Your task to perform on an android device: View the shopping cart on newegg. Image 0: 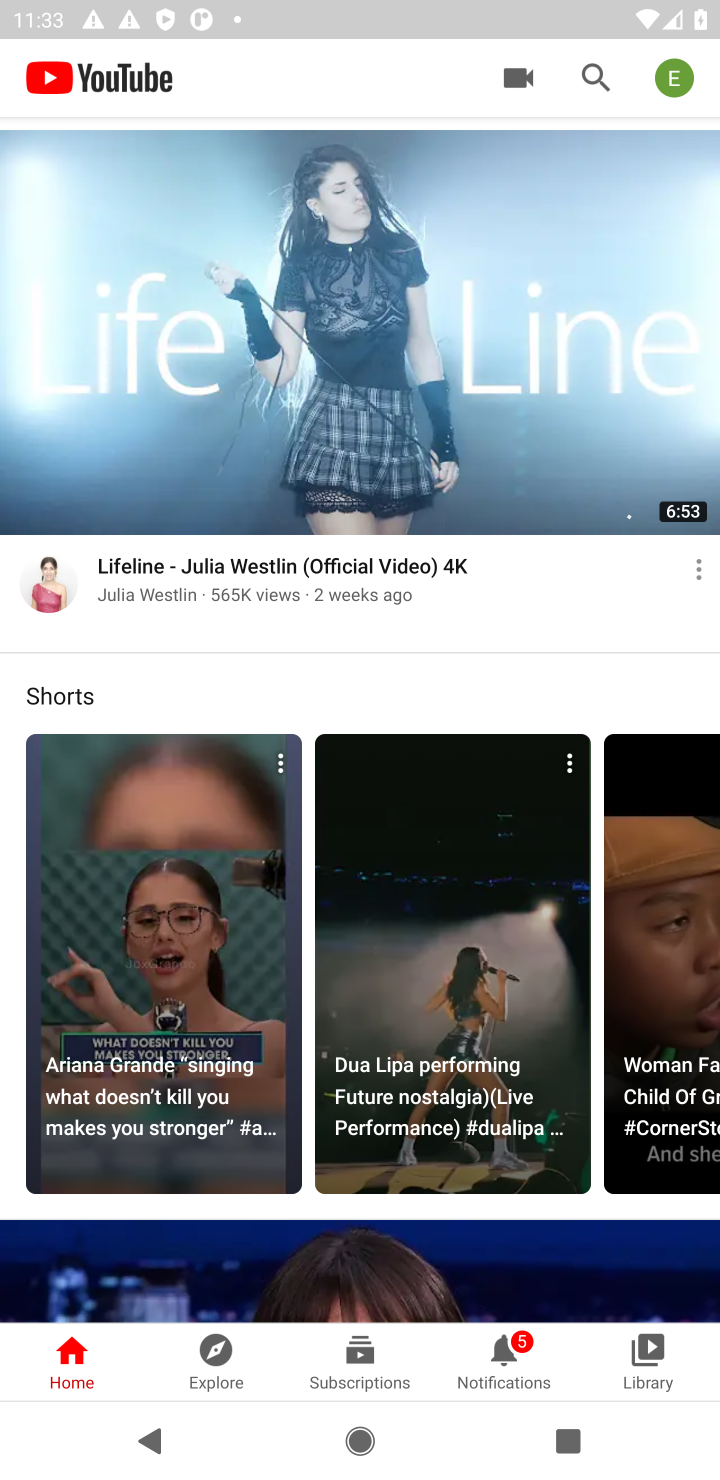
Step 0: press home button
Your task to perform on an android device: View the shopping cart on newegg. Image 1: 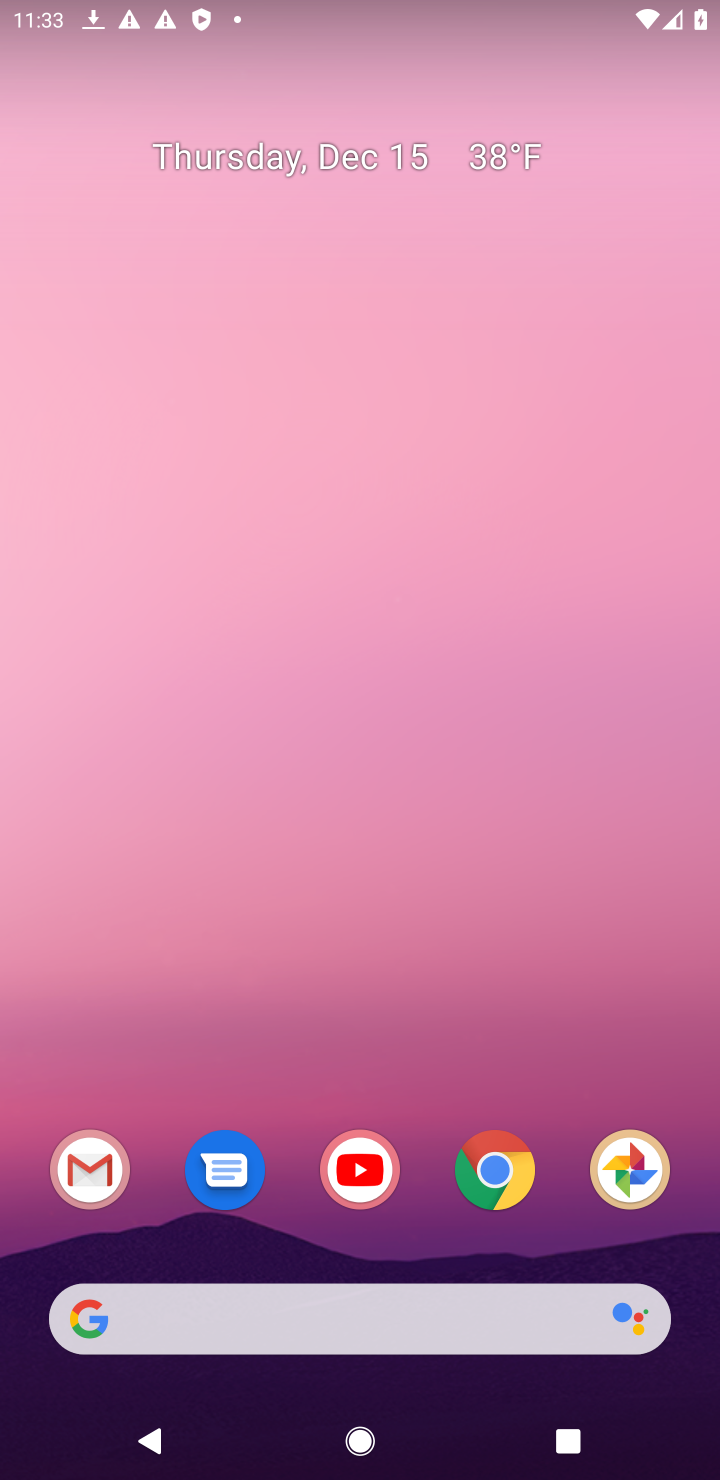
Step 1: click (504, 1188)
Your task to perform on an android device: View the shopping cart on newegg. Image 2: 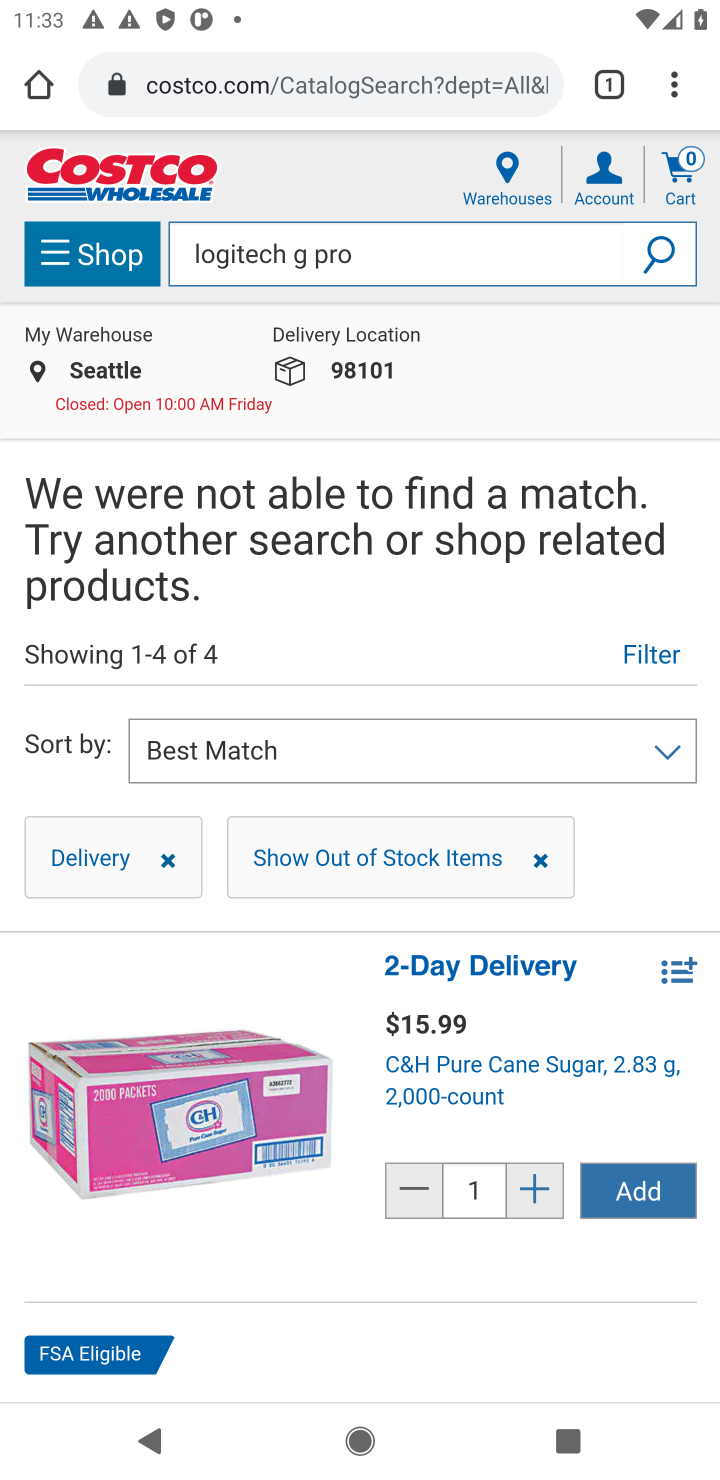
Step 2: click (301, 94)
Your task to perform on an android device: View the shopping cart on newegg. Image 3: 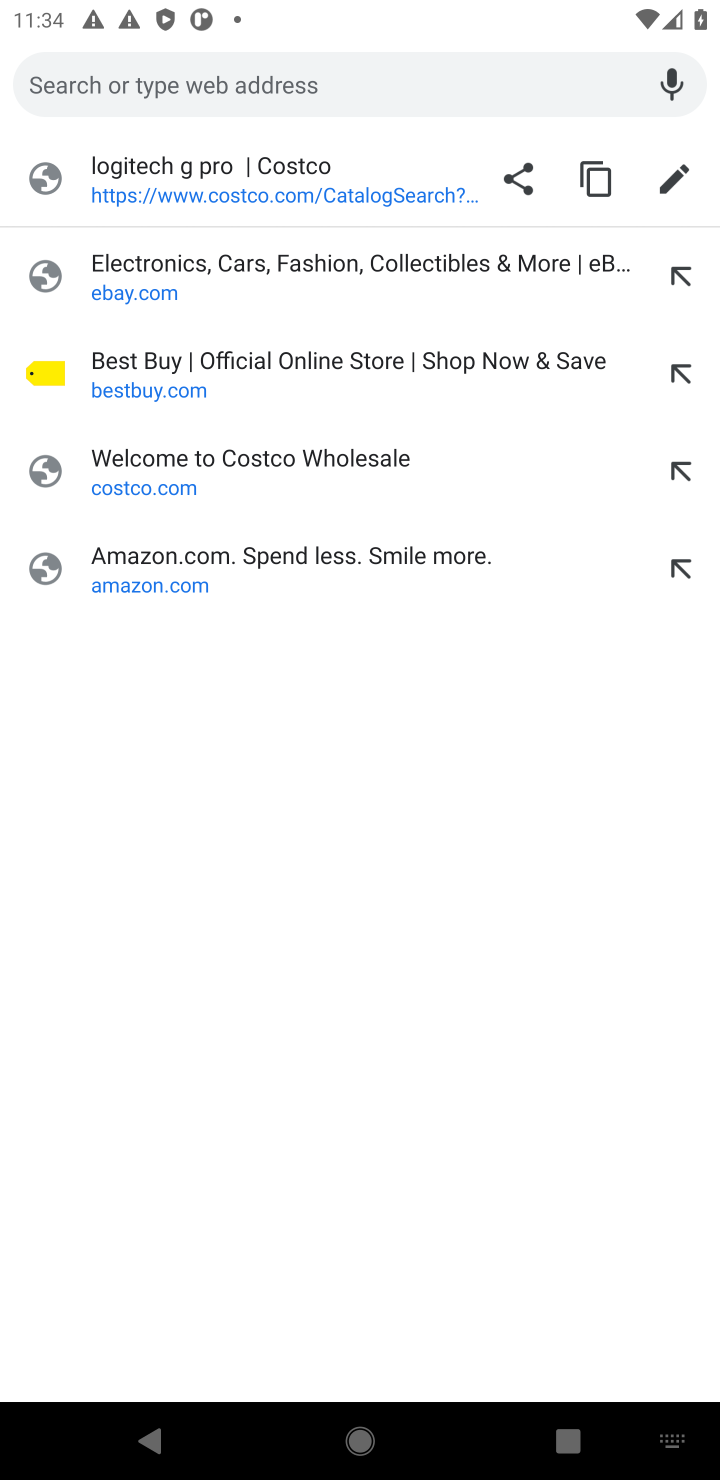
Step 3: type "newegg.com"
Your task to perform on an android device: View the shopping cart on newegg. Image 4: 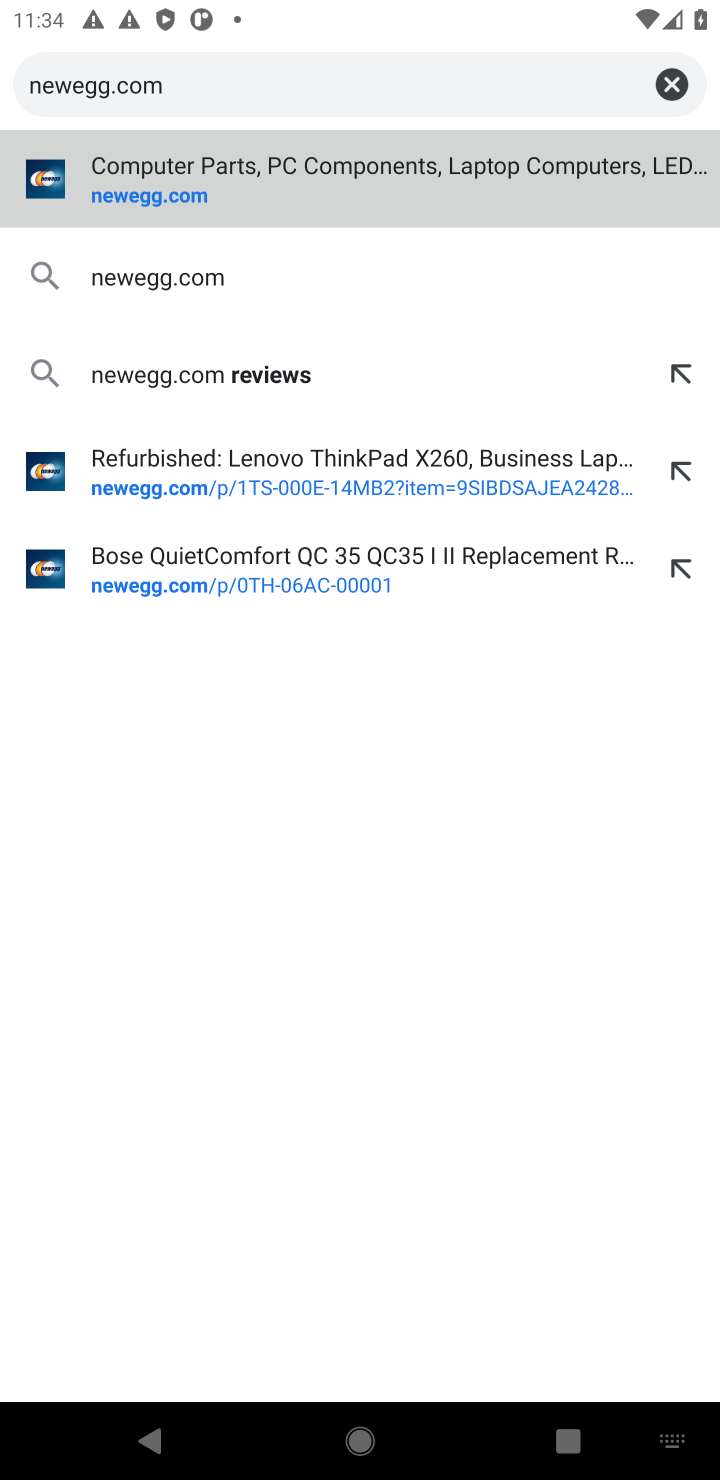
Step 4: click (126, 193)
Your task to perform on an android device: View the shopping cart on newegg. Image 5: 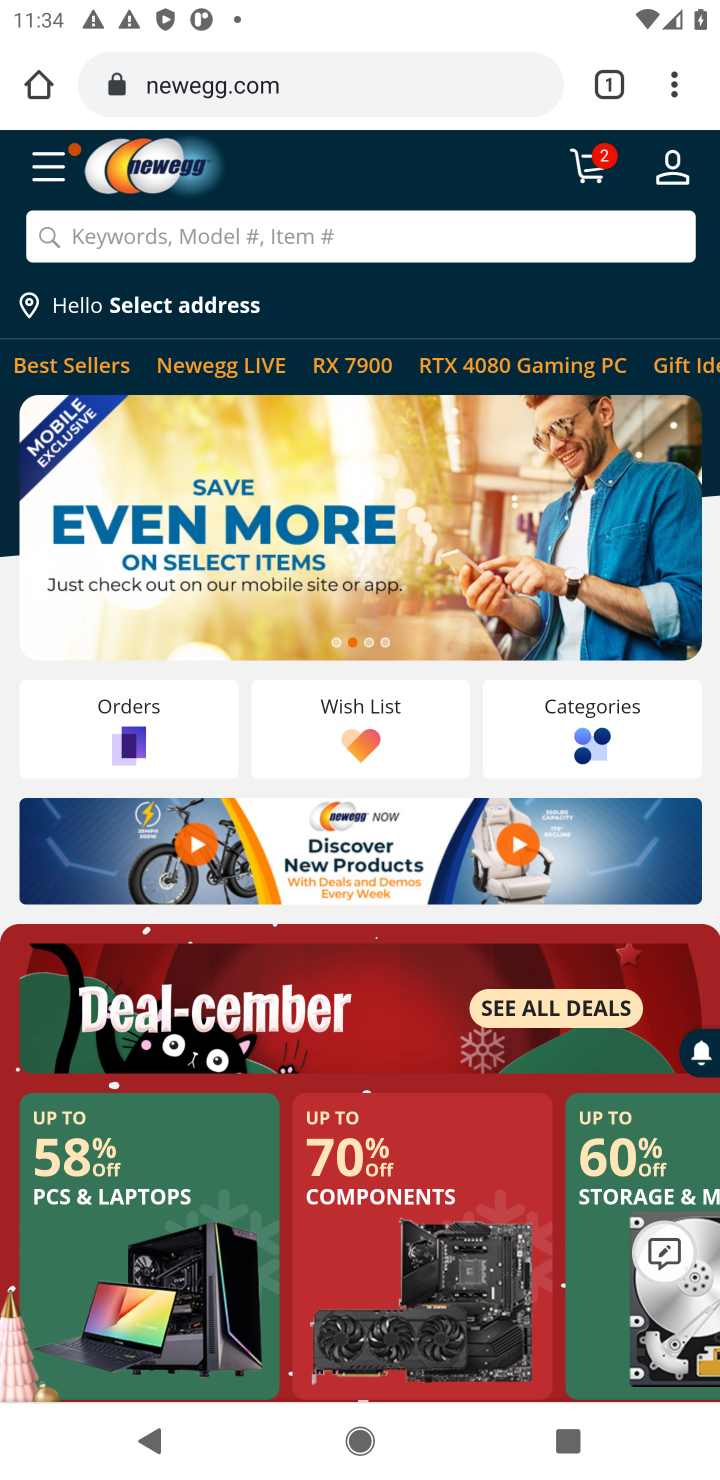
Step 5: click (597, 166)
Your task to perform on an android device: View the shopping cart on newegg. Image 6: 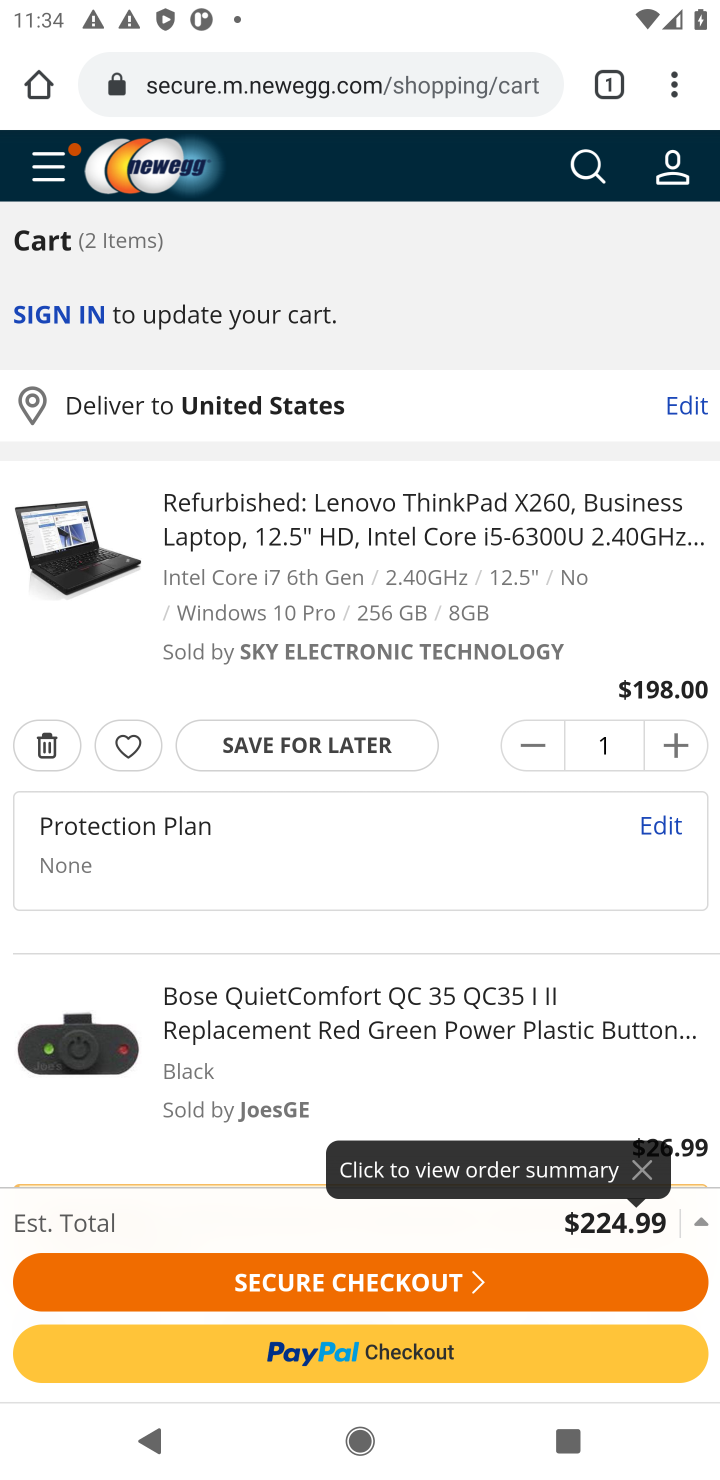
Step 6: task complete